Your task to perform on an android device: check google app version Image 0: 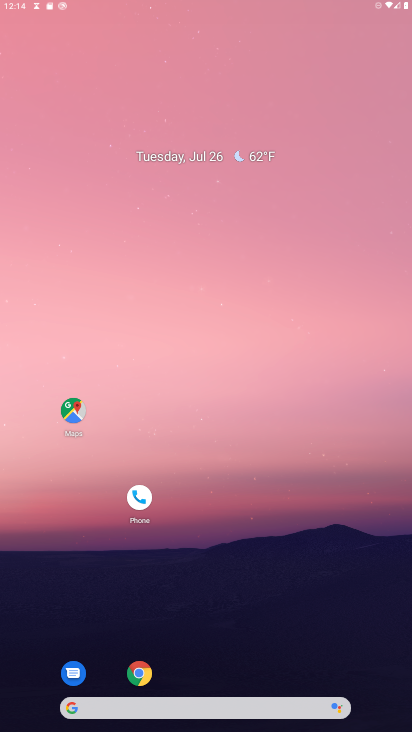
Step 0: press home button
Your task to perform on an android device: check google app version Image 1: 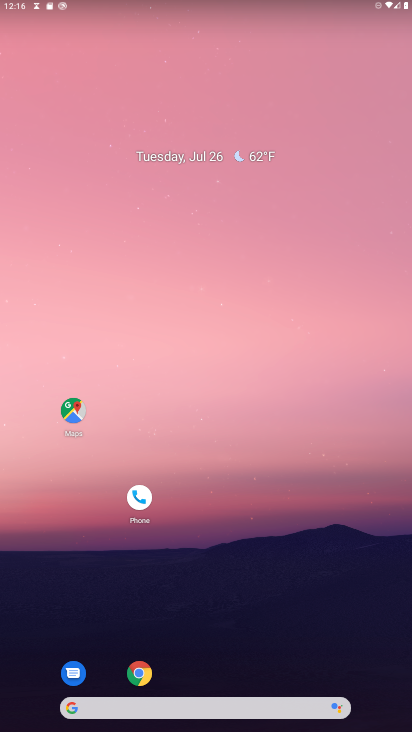
Step 1: click (73, 711)
Your task to perform on an android device: check google app version Image 2: 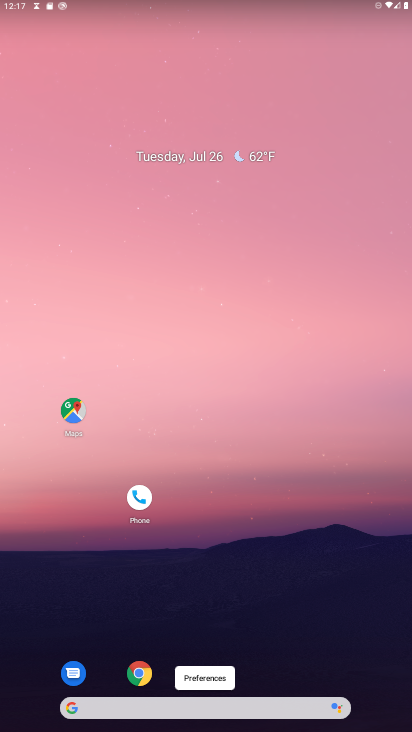
Step 2: drag from (329, 671) to (350, 114)
Your task to perform on an android device: check google app version Image 3: 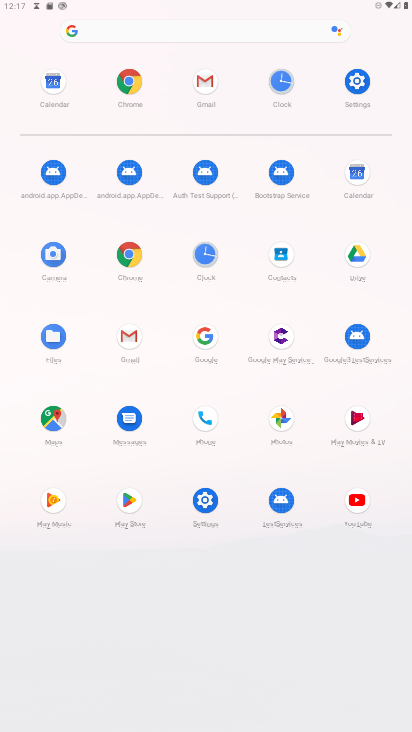
Step 3: click (212, 344)
Your task to perform on an android device: check google app version Image 4: 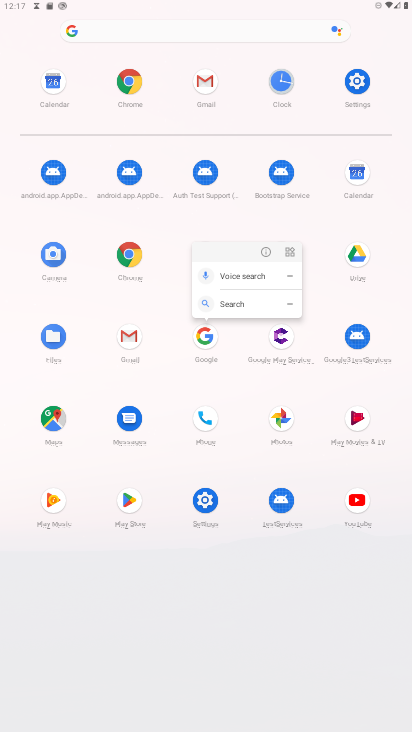
Step 4: click (264, 257)
Your task to perform on an android device: check google app version Image 5: 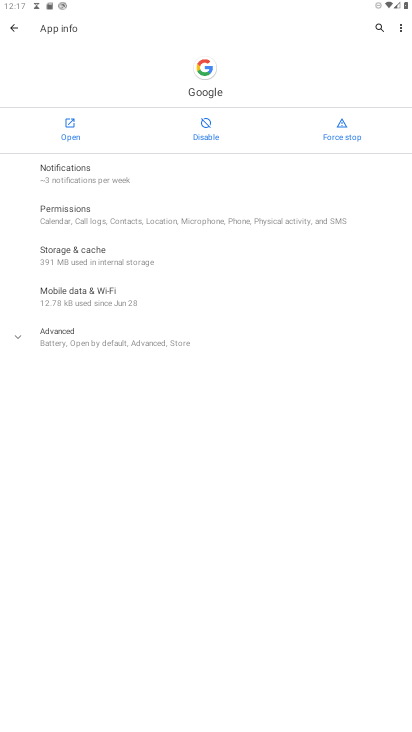
Step 5: click (52, 338)
Your task to perform on an android device: check google app version Image 6: 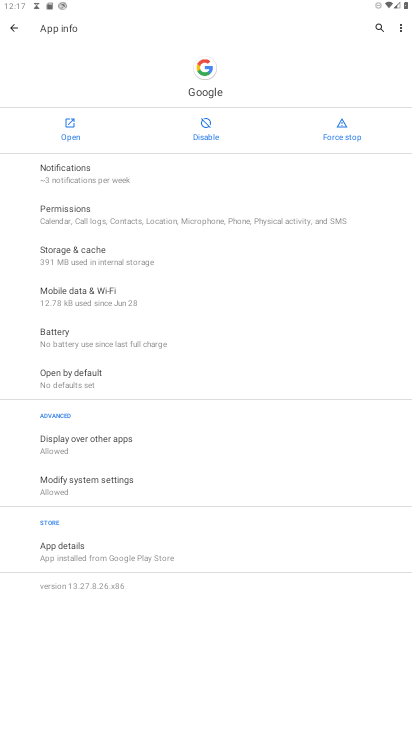
Step 6: task complete